Your task to perform on an android device: Go to battery settings Image 0: 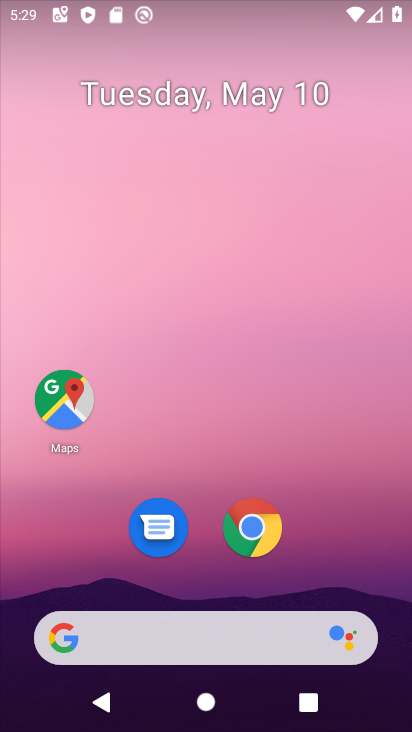
Step 0: drag from (338, 585) to (270, 0)
Your task to perform on an android device: Go to battery settings Image 1: 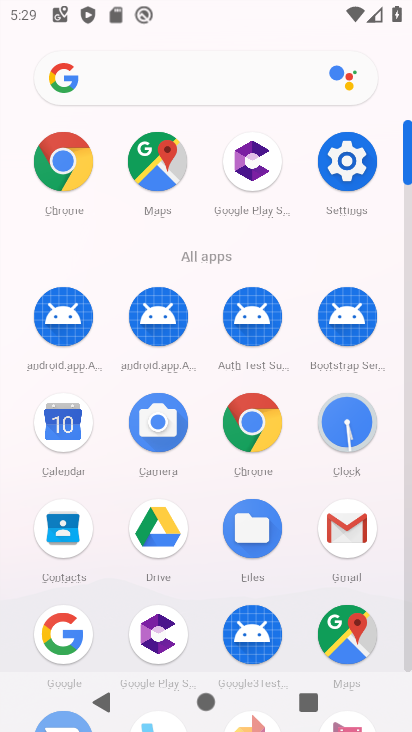
Step 1: click (332, 177)
Your task to perform on an android device: Go to battery settings Image 2: 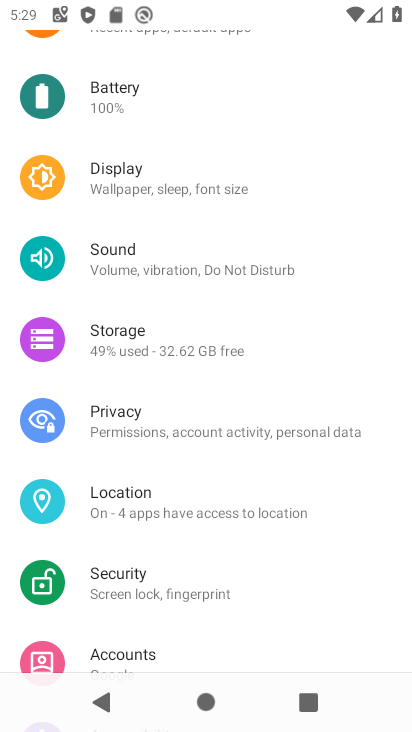
Step 2: click (146, 86)
Your task to perform on an android device: Go to battery settings Image 3: 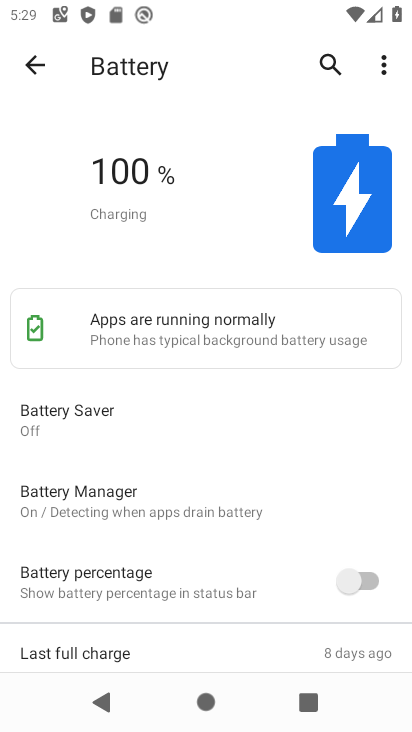
Step 3: task complete